Your task to perform on an android device: Check the settings for the Twitter app Image 0: 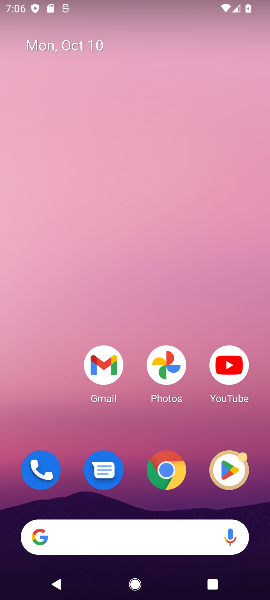
Step 0: drag from (121, 491) to (133, 3)
Your task to perform on an android device: Check the settings for the Twitter app Image 1: 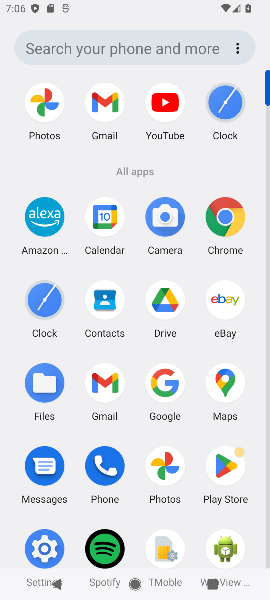
Step 1: drag from (135, 481) to (116, 42)
Your task to perform on an android device: Check the settings for the Twitter app Image 2: 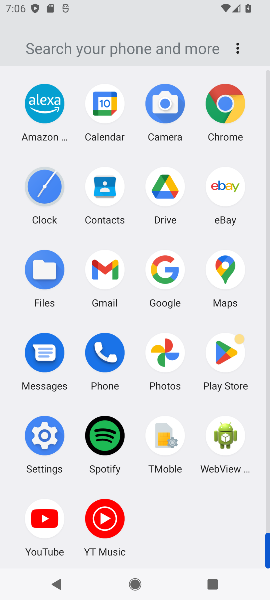
Step 2: click (223, 345)
Your task to perform on an android device: Check the settings for the Twitter app Image 3: 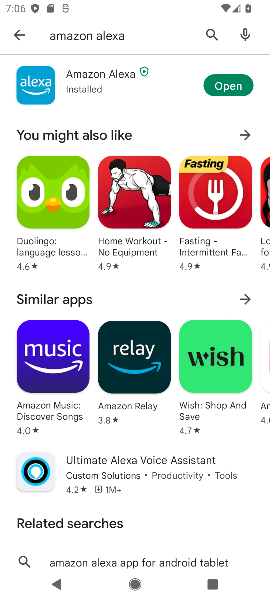
Step 3: click (211, 35)
Your task to perform on an android device: Check the settings for the Twitter app Image 4: 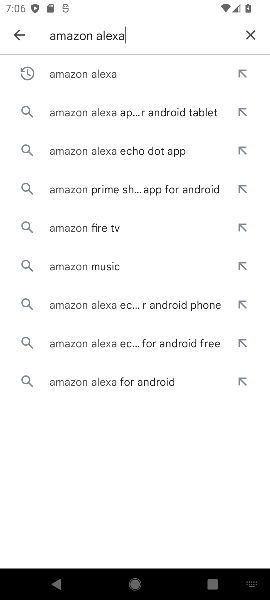
Step 4: click (243, 35)
Your task to perform on an android device: Check the settings for the Twitter app Image 5: 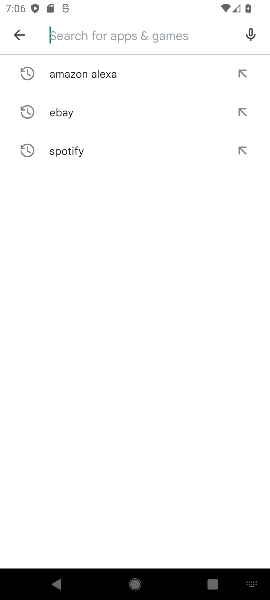
Step 5: type "Twitter"
Your task to perform on an android device: Check the settings for the Twitter app Image 6: 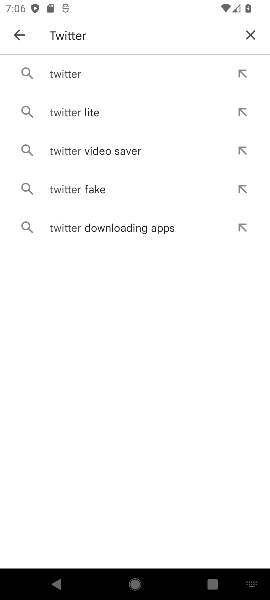
Step 6: click (157, 80)
Your task to perform on an android device: Check the settings for the Twitter app Image 7: 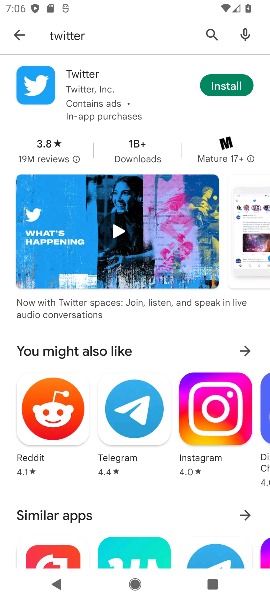
Step 7: click (232, 79)
Your task to perform on an android device: Check the settings for the Twitter app Image 8: 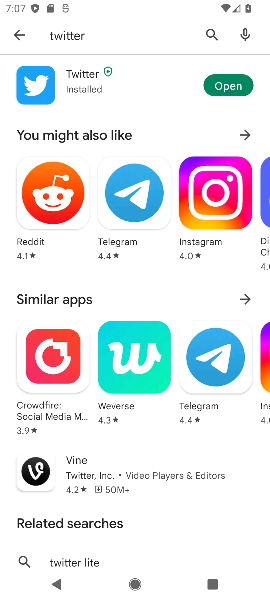
Step 8: click (232, 79)
Your task to perform on an android device: Check the settings for the Twitter app Image 9: 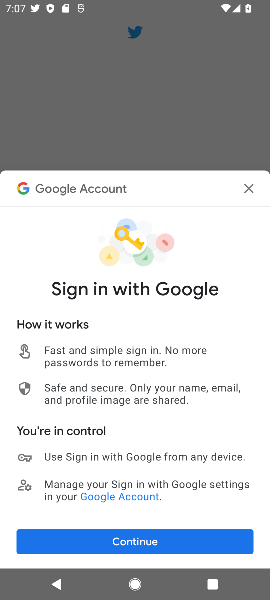
Step 9: click (137, 538)
Your task to perform on an android device: Check the settings for the Twitter app Image 10: 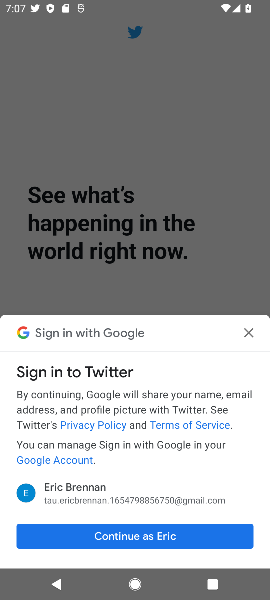
Step 10: click (137, 538)
Your task to perform on an android device: Check the settings for the Twitter app Image 11: 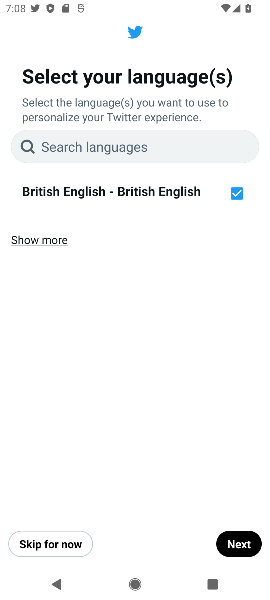
Step 11: click (250, 542)
Your task to perform on an android device: Check the settings for the Twitter app Image 12: 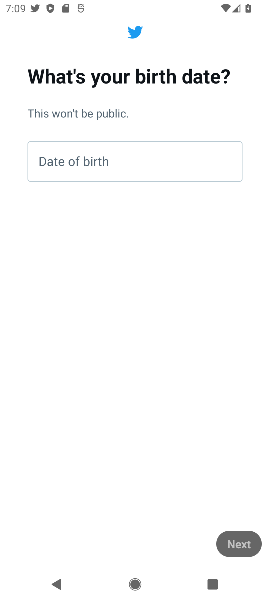
Step 12: task complete